Your task to perform on an android device: toggle airplane mode Image 0: 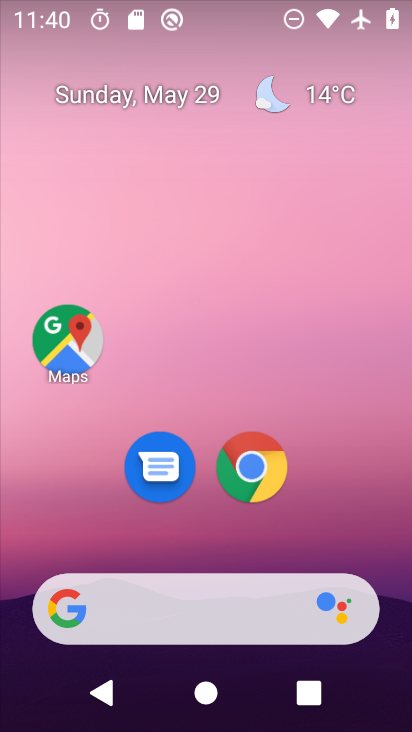
Step 0: drag from (232, 555) to (208, 161)
Your task to perform on an android device: toggle airplane mode Image 1: 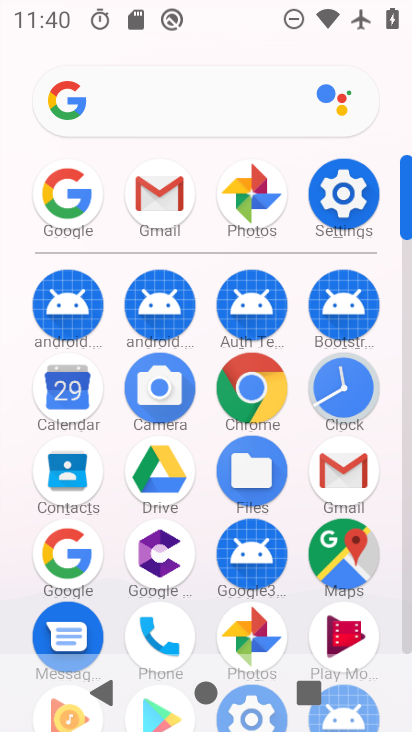
Step 1: click (363, 175)
Your task to perform on an android device: toggle airplane mode Image 2: 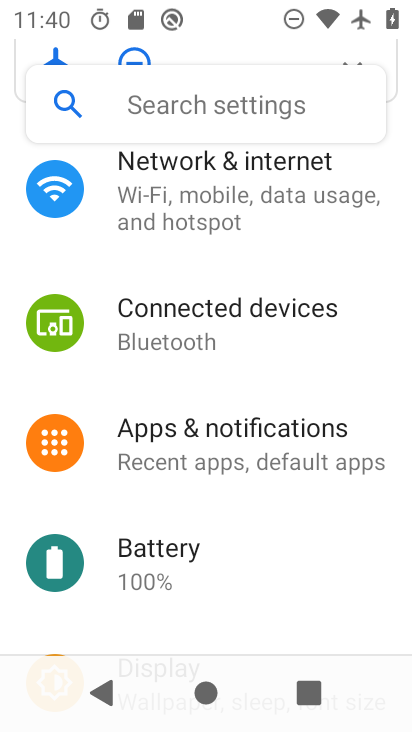
Step 2: click (258, 189)
Your task to perform on an android device: toggle airplane mode Image 3: 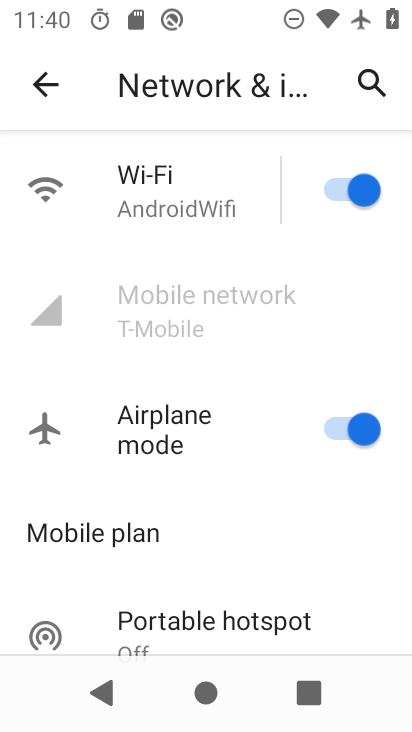
Step 3: click (326, 432)
Your task to perform on an android device: toggle airplane mode Image 4: 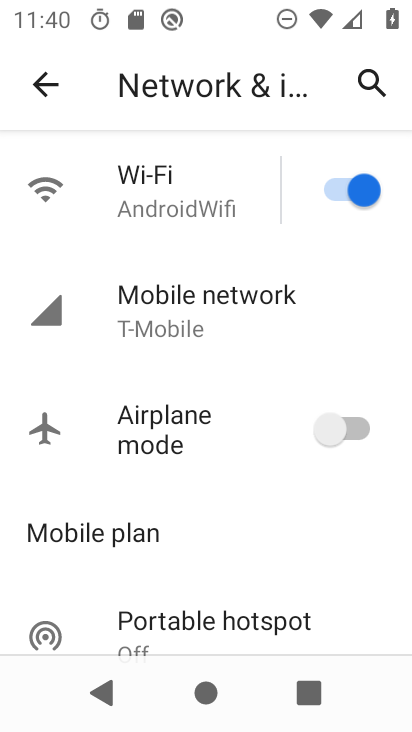
Step 4: task complete